Your task to perform on an android device: Search for sushi restaurants on Maps Image 0: 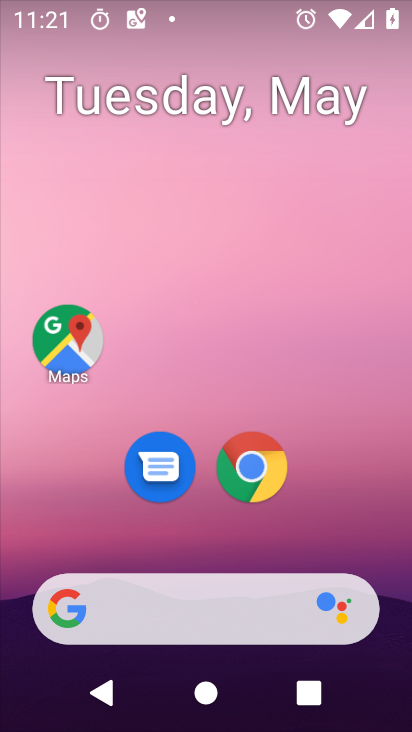
Step 0: drag from (398, 586) to (296, 37)
Your task to perform on an android device: Search for sushi restaurants on Maps Image 1: 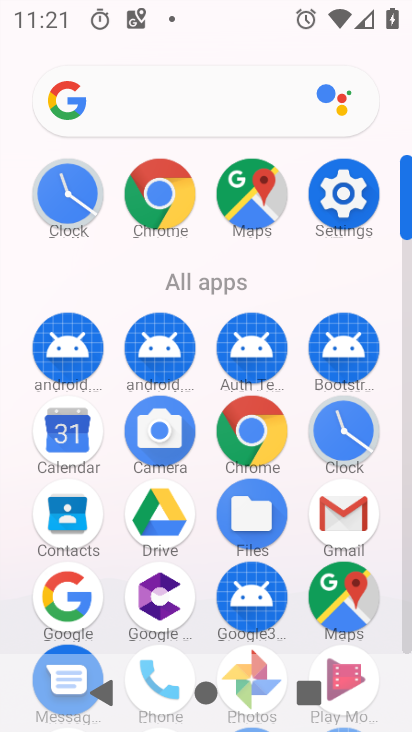
Step 1: drag from (14, 555) to (10, 272)
Your task to perform on an android device: Search for sushi restaurants on Maps Image 2: 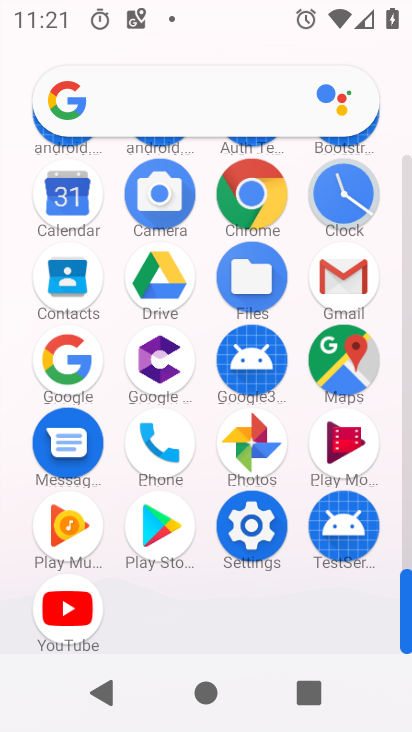
Step 2: click (345, 354)
Your task to perform on an android device: Search for sushi restaurants on Maps Image 3: 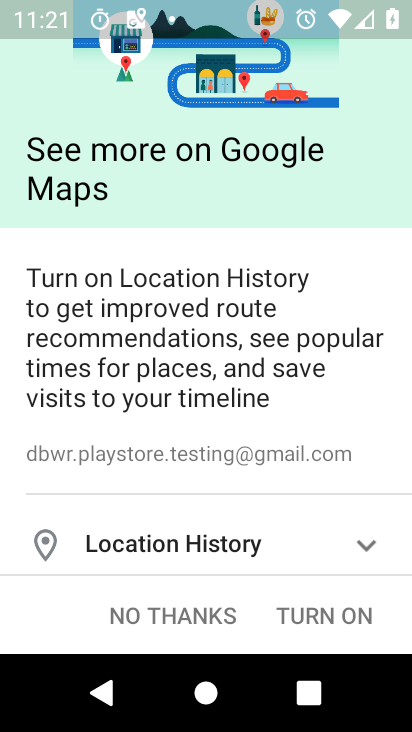
Step 3: click (327, 605)
Your task to perform on an android device: Search for sushi restaurants on Maps Image 4: 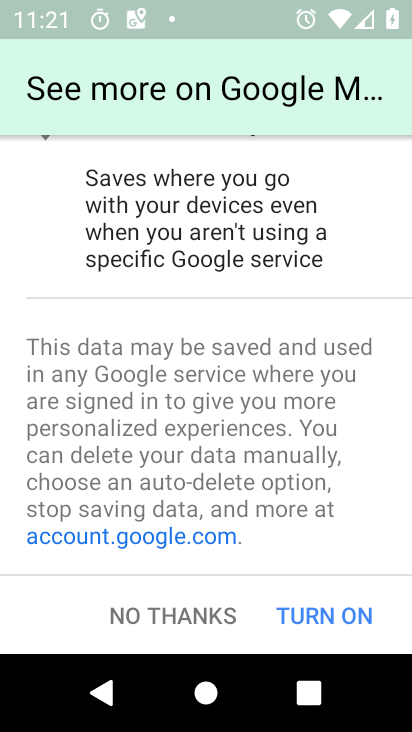
Step 4: click (327, 605)
Your task to perform on an android device: Search for sushi restaurants on Maps Image 5: 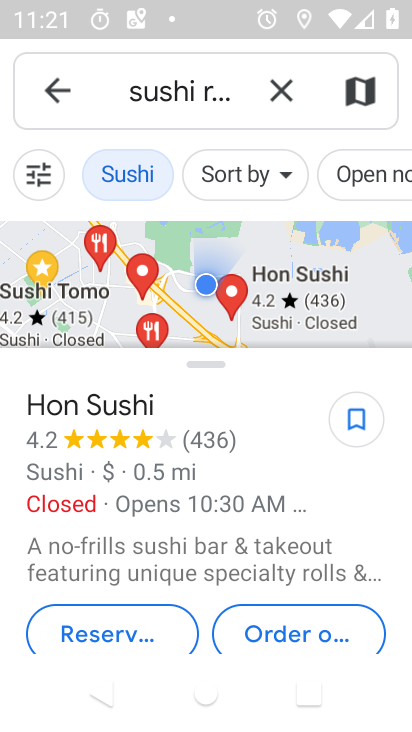
Step 5: task complete